Your task to perform on an android device: Open Yahoo.com Image 0: 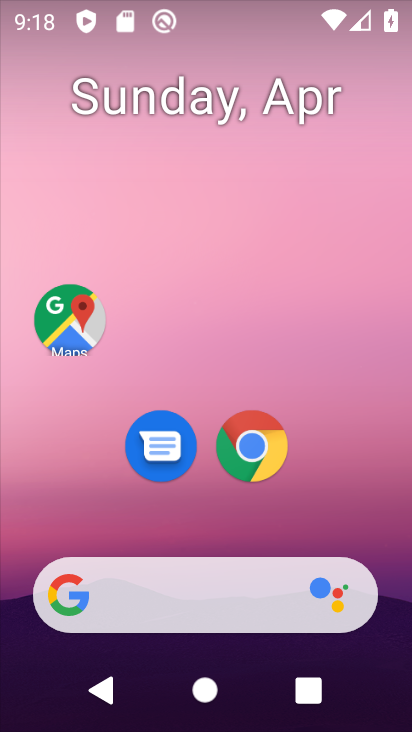
Step 0: click (180, 613)
Your task to perform on an android device: Open Yahoo.com Image 1: 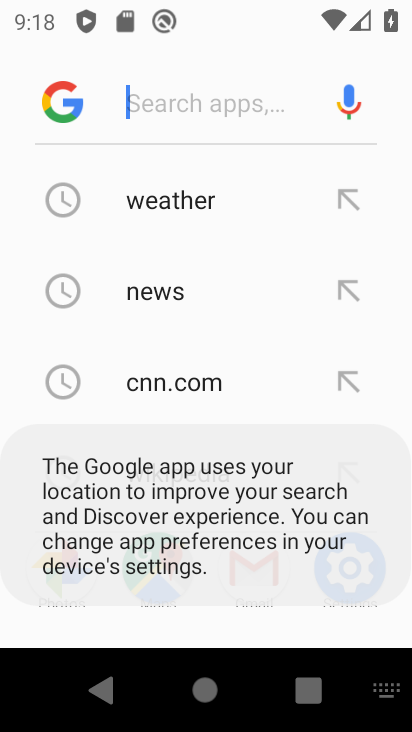
Step 1: drag from (210, 353) to (242, 12)
Your task to perform on an android device: Open Yahoo.com Image 2: 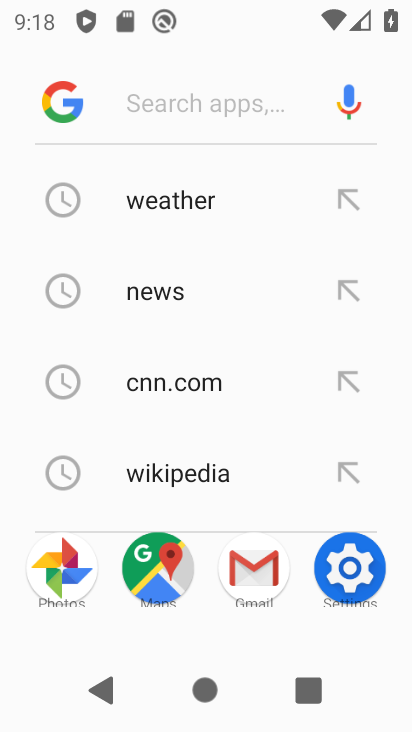
Step 2: drag from (181, 440) to (255, 132)
Your task to perform on an android device: Open Yahoo.com Image 3: 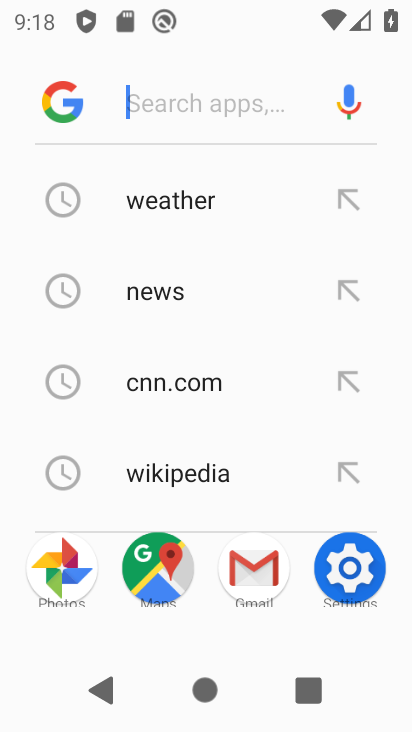
Step 3: click (177, 98)
Your task to perform on an android device: Open Yahoo.com Image 4: 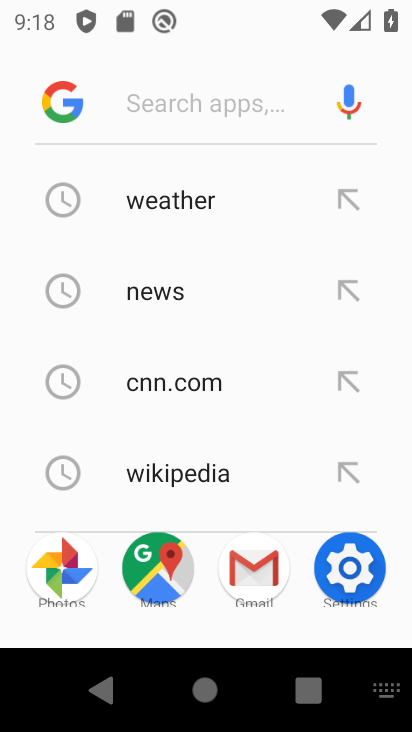
Step 4: type "yahoo.com"
Your task to perform on an android device: Open Yahoo.com Image 5: 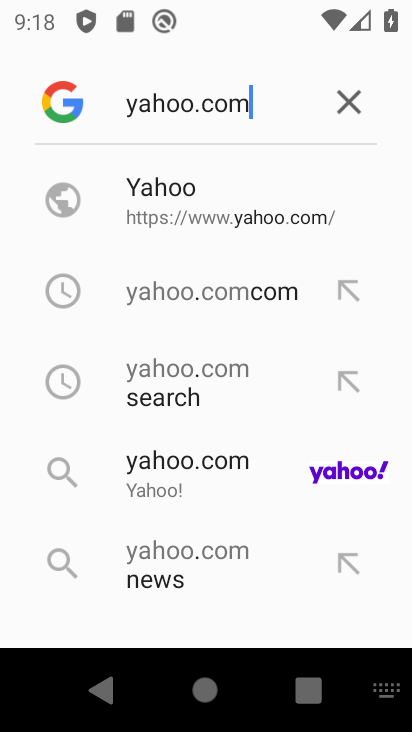
Step 5: click (211, 474)
Your task to perform on an android device: Open Yahoo.com Image 6: 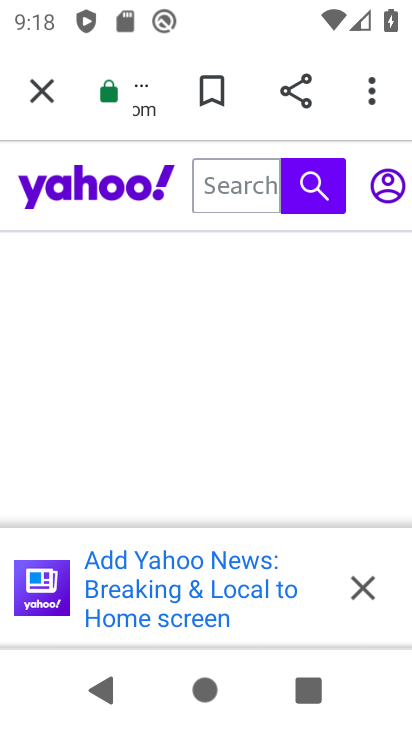
Step 6: task complete